Your task to perform on an android device: Open the map Image 0: 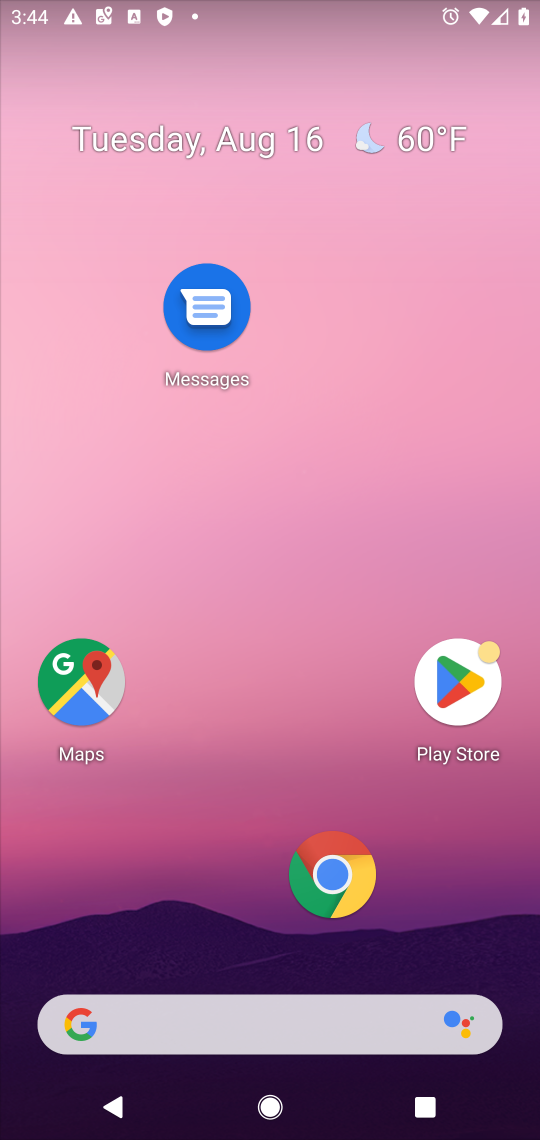
Step 0: click (72, 676)
Your task to perform on an android device: Open the map Image 1: 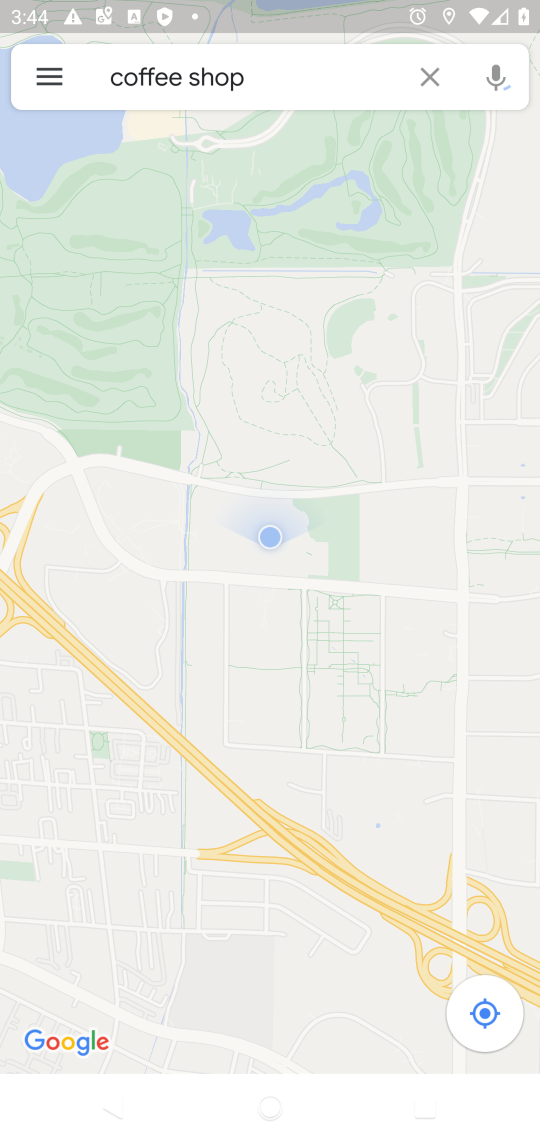
Step 1: task complete